Your task to perform on an android device: Open network settings Image 0: 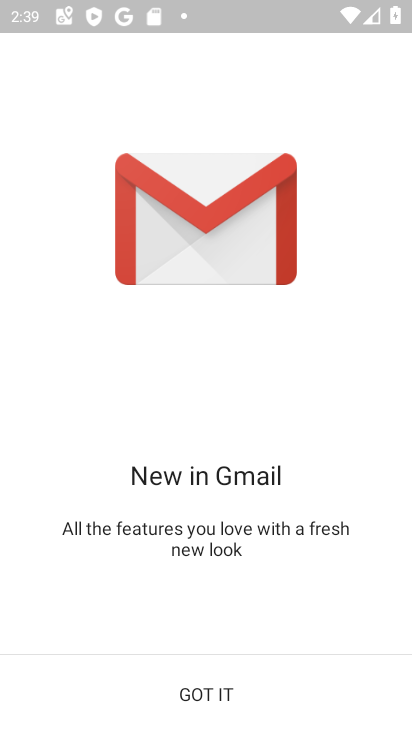
Step 0: press home button
Your task to perform on an android device: Open network settings Image 1: 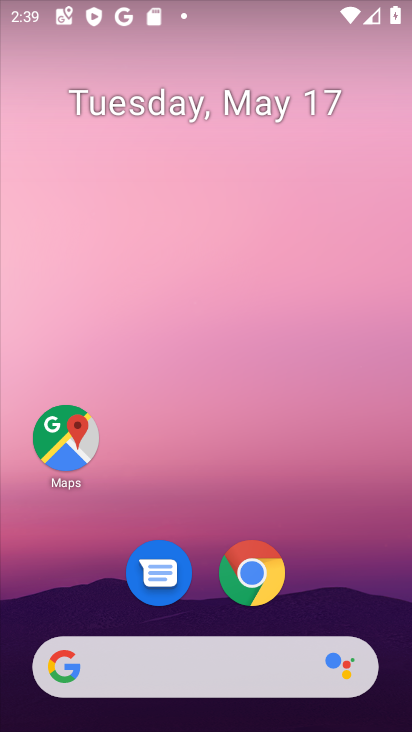
Step 1: drag from (369, 579) to (317, 140)
Your task to perform on an android device: Open network settings Image 2: 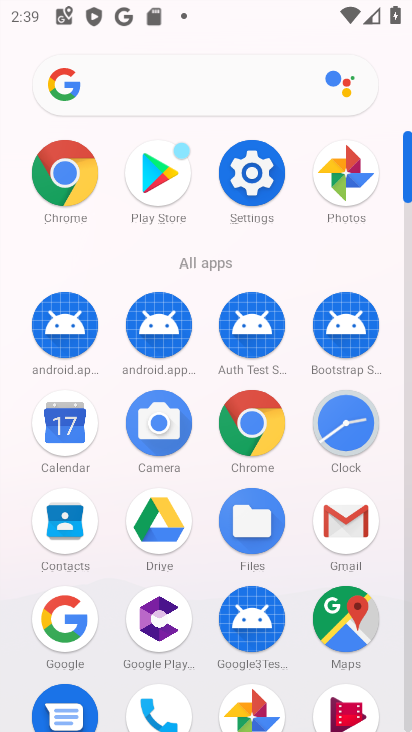
Step 2: click (241, 171)
Your task to perform on an android device: Open network settings Image 3: 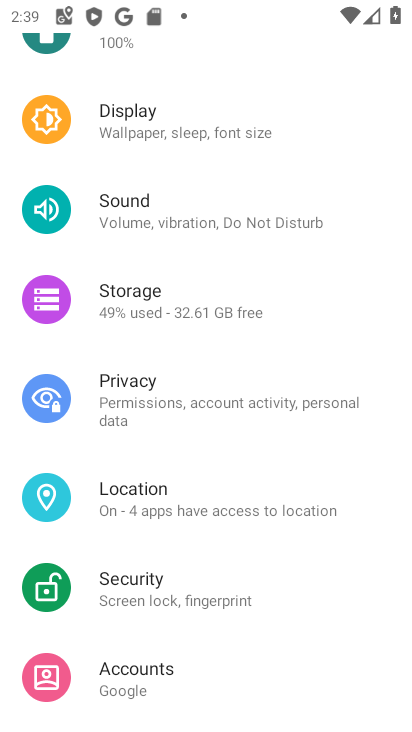
Step 3: drag from (242, 172) to (265, 654)
Your task to perform on an android device: Open network settings Image 4: 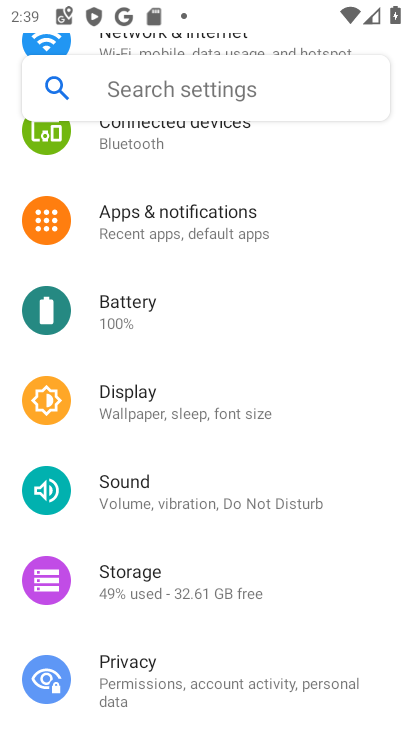
Step 4: drag from (228, 207) to (266, 577)
Your task to perform on an android device: Open network settings Image 5: 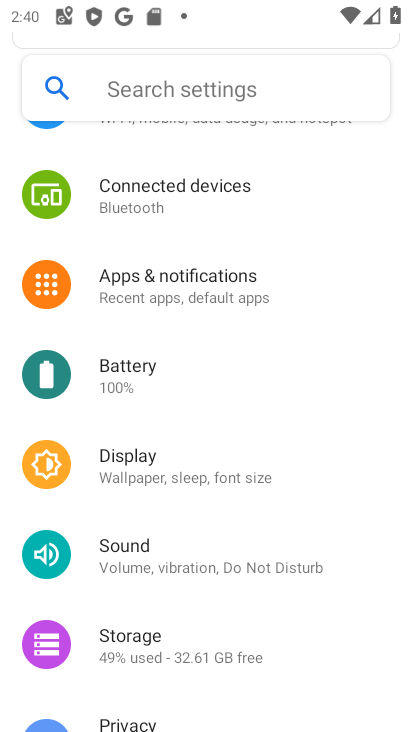
Step 5: drag from (313, 251) to (296, 661)
Your task to perform on an android device: Open network settings Image 6: 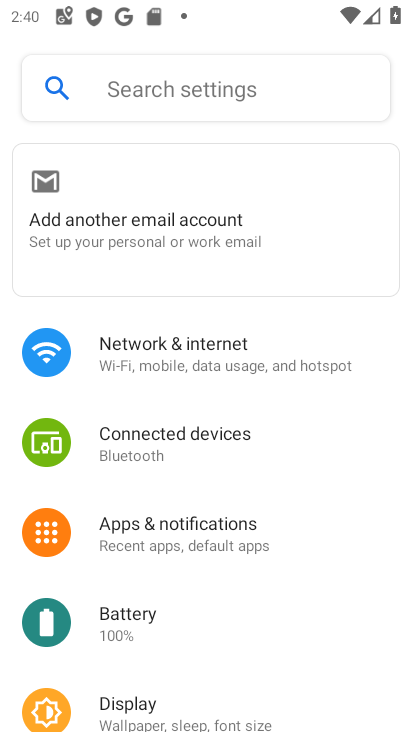
Step 6: click (229, 344)
Your task to perform on an android device: Open network settings Image 7: 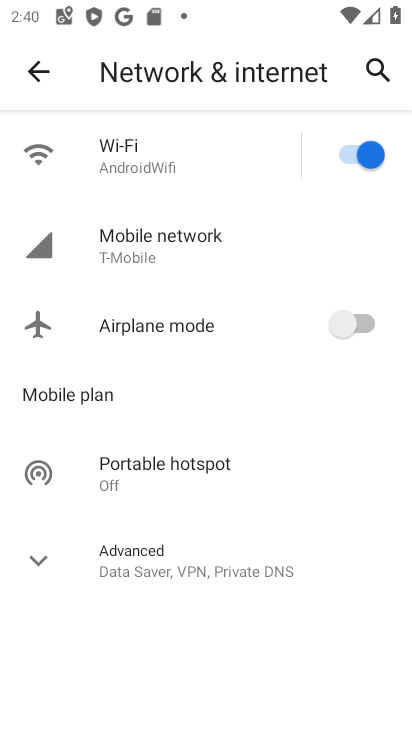
Step 7: task complete